Your task to perform on an android device: open device folders in google photos Image 0: 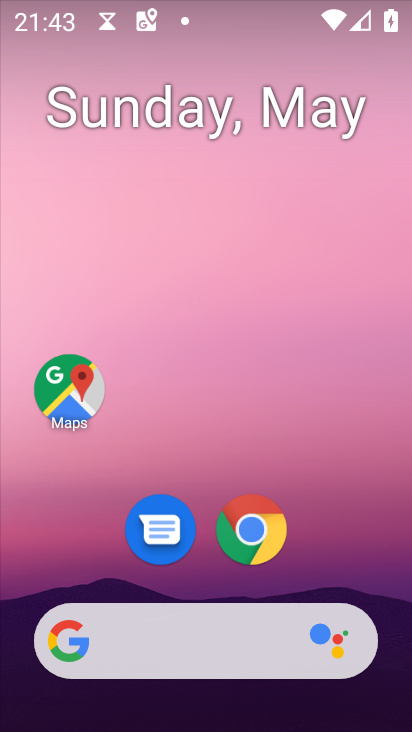
Step 0: drag from (333, 573) to (329, 12)
Your task to perform on an android device: open device folders in google photos Image 1: 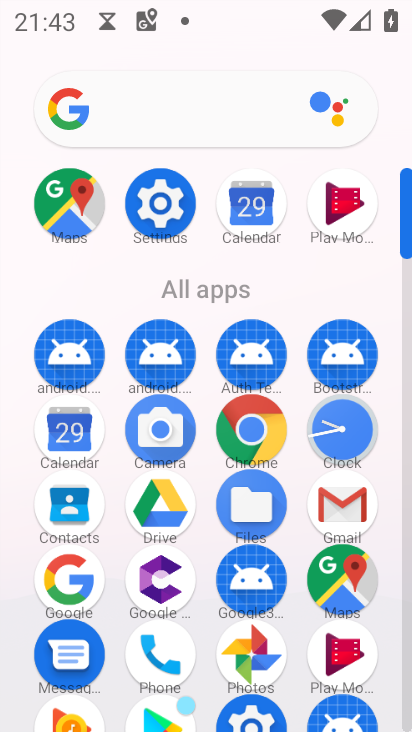
Step 1: click (249, 649)
Your task to perform on an android device: open device folders in google photos Image 2: 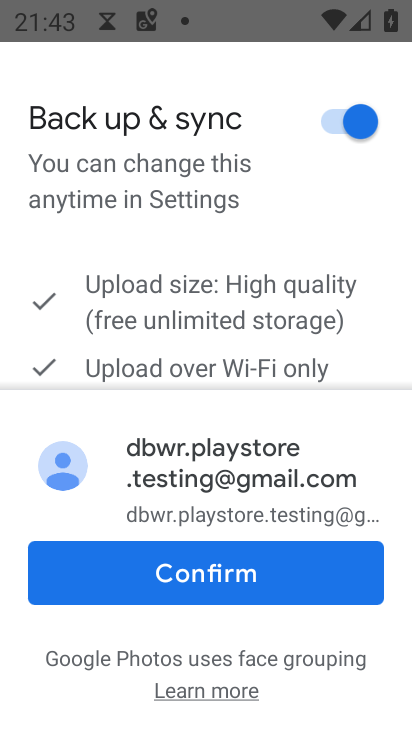
Step 2: click (82, 568)
Your task to perform on an android device: open device folders in google photos Image 3: 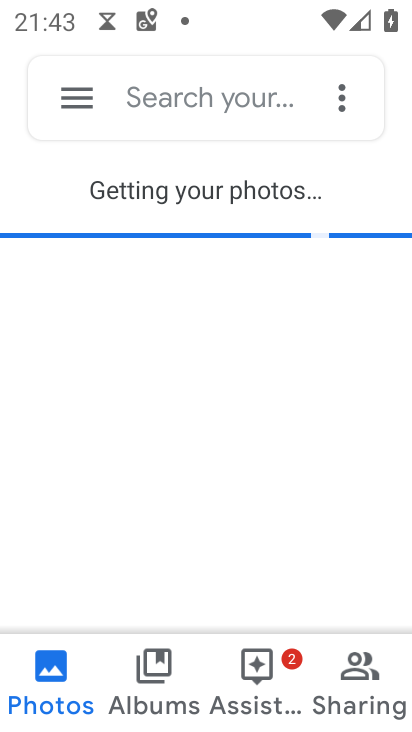
Step 3: click (77, 90)
Your task to perform on an android device: open device folders in google photos Image 4: 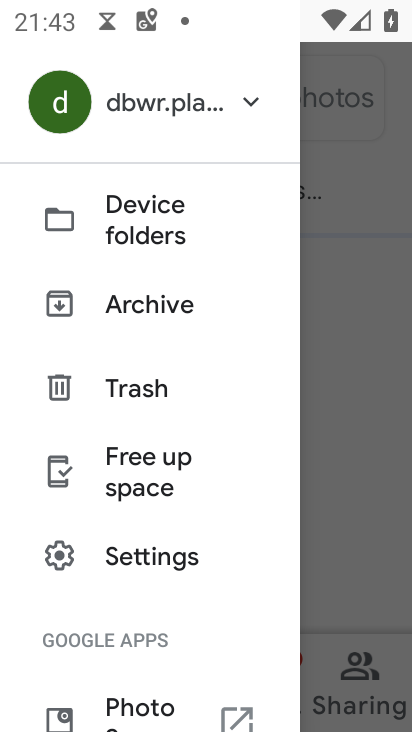
Step 4: click (125, 221)
Your task to perform on an android device: open device folders in google photos Image 5: 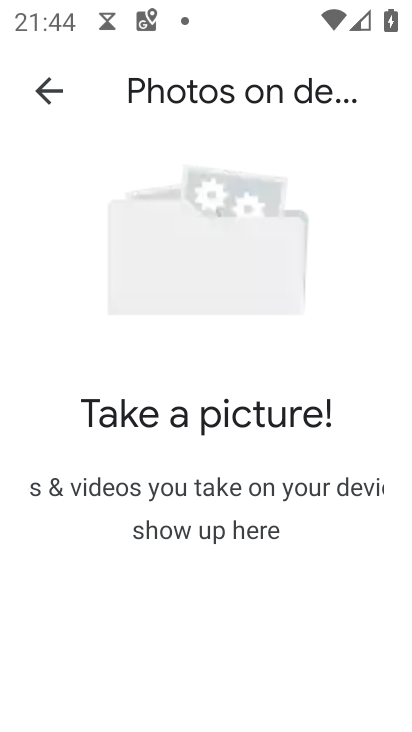
Step 5: task complete